Your task to perform on an android device: Open the phone app and click the voicemail tab. Image 0: 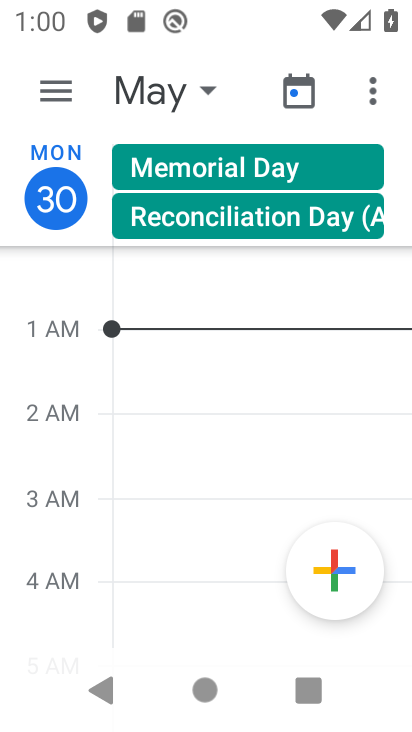
Step 0: press home button
Your task to perform on an android device: Open the phone app and click the voicemail tab. Image 1: 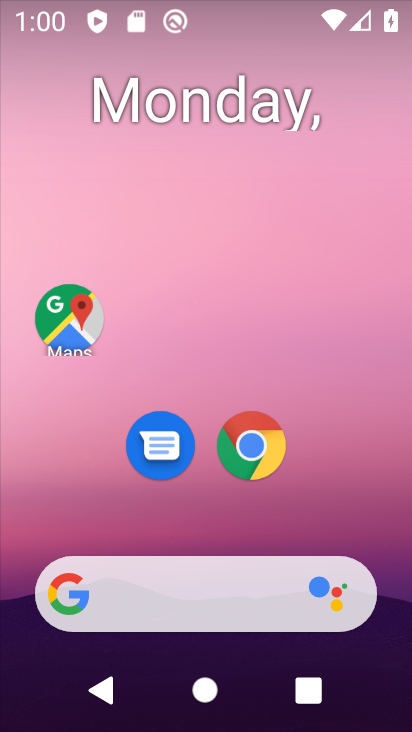
Step 1: drag from (396, 556) to (318, 132)
Your task to perform on an android device: Open the phone app and click the voicemail tab. Image 2: 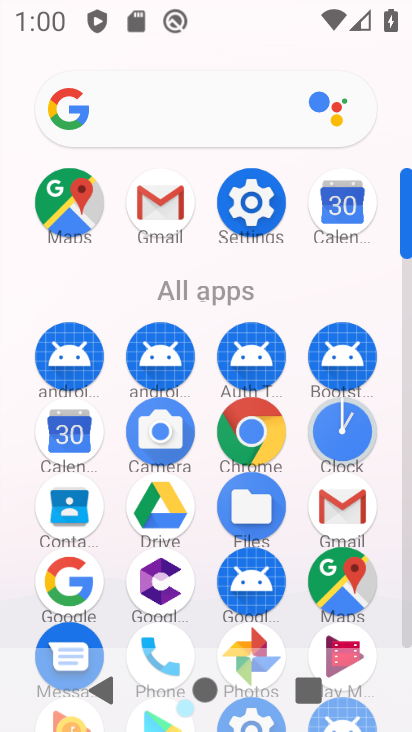
Step 2: click (408, 619)
Your task to perform on an android device: Open the phone app and click the voicemail tab. Image 3: 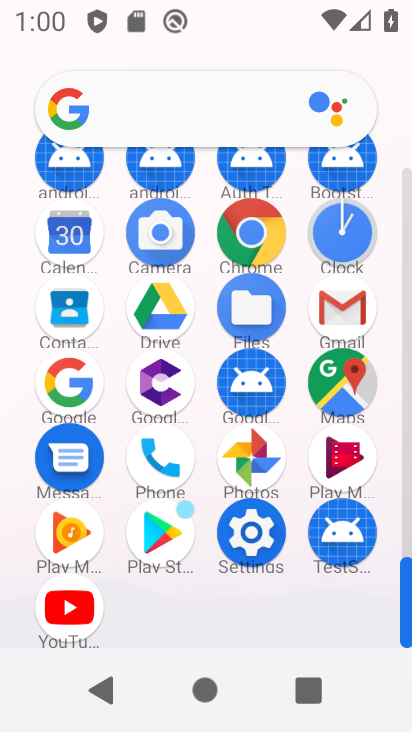
Step 3: click (153, 455)
Your task to perform on an android device: Open the phone app and click the voicemail tab. Image 4: 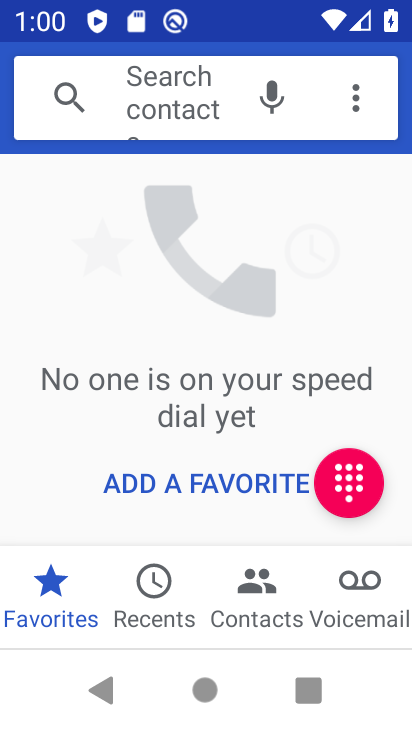
Step 4: click (350, 584)
Your task to perform on an android device: Open the phone app and click the voicemail tab. Image 5: 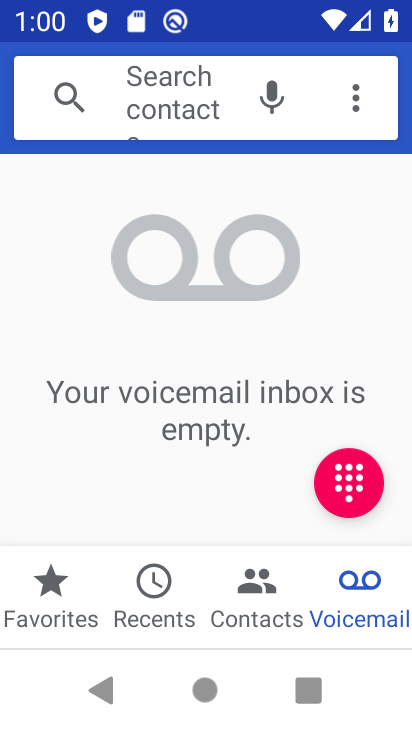
Step 5: task complete